Your task to perform on an android device: snooze an email in the gmail app Image 0: 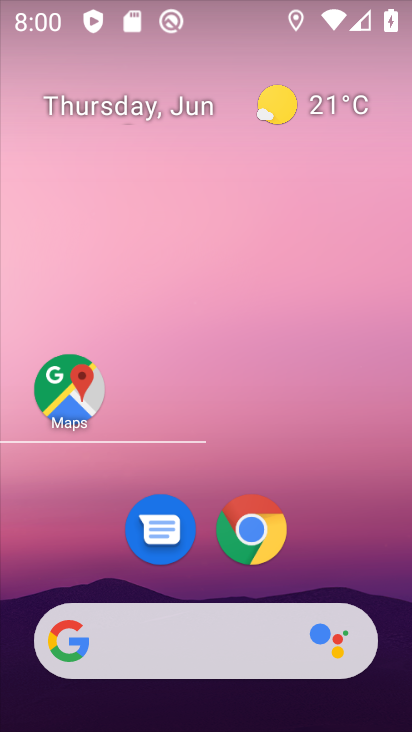
Step 0: press home button
Your task to perform on an android device: snooze an email in the gmail app Image 1: 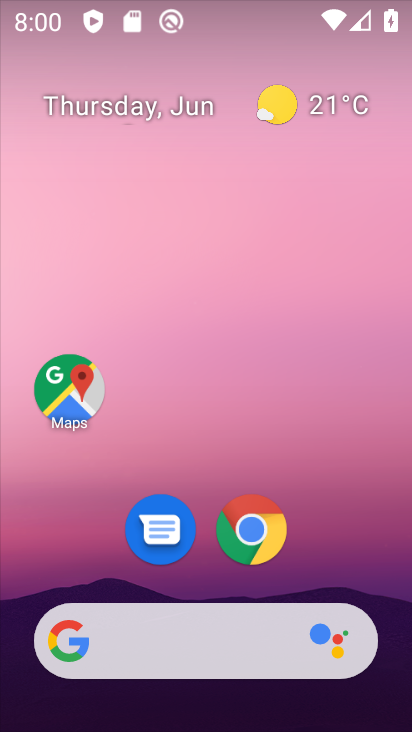
Step 1: press home button
Your task to perform on an android device: snooze an email in the gmail app Image 2: 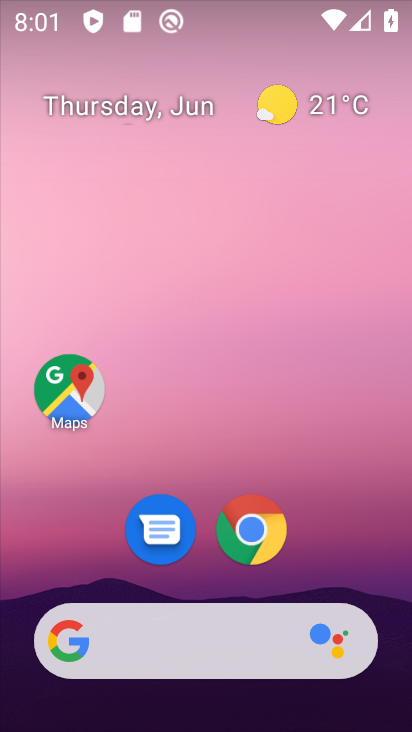
Step 2: drag from (305, 526) to (198, 9)
Your task to perform on an android device: snooze an email in the gmail app Image 3: 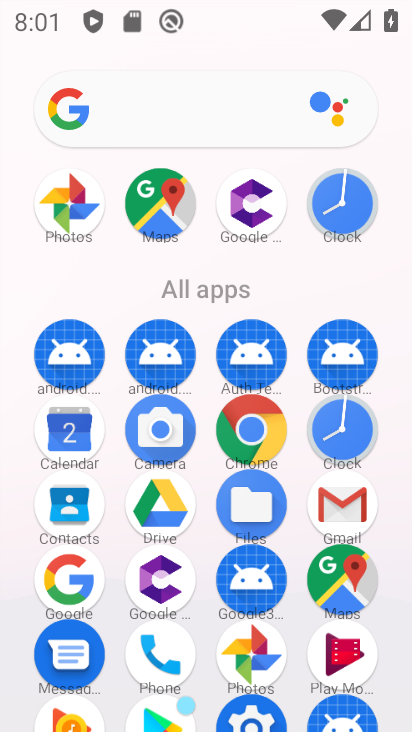
Step 3: click (335, 503)
Your task to perform on an android device: snooze an email in the gmail app Image 4: 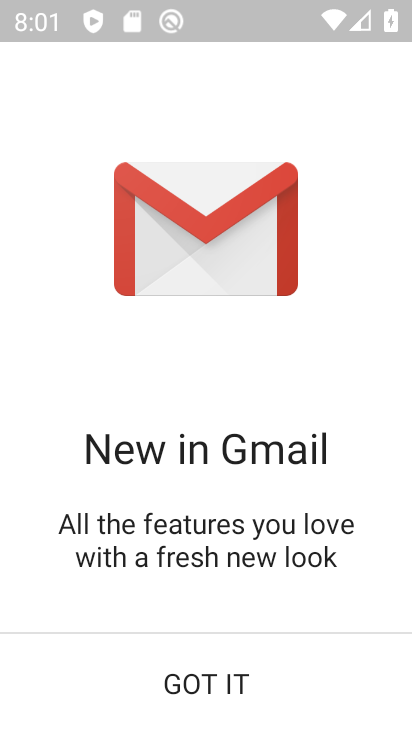
Step 4: click (186, 679)
Your task to perform on an android device: snooze an email in the gmail app Image 5: 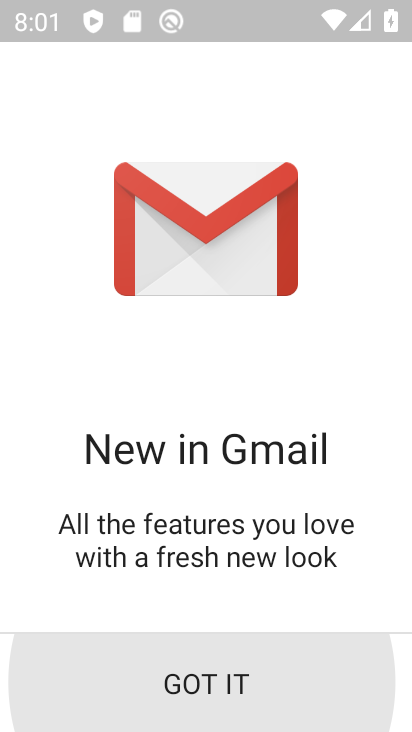
Step 5: click (186, 679)
Your task to perform on an android device: snooze an email in the gmail app Image 6: 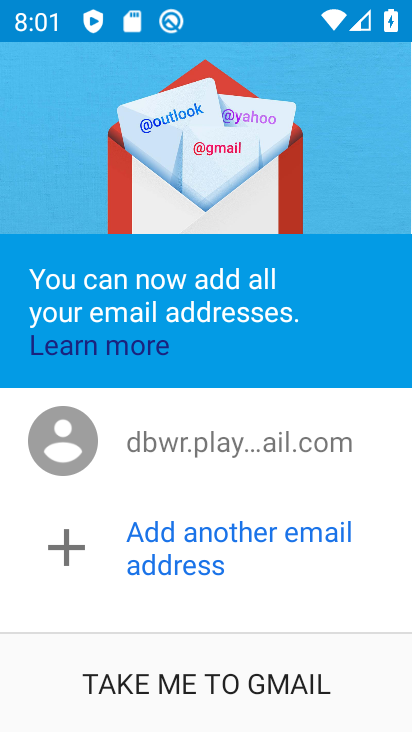
Step 6: click (203, 679)
Your task to perform on an android device: snooze an email in the gmail app Image 7: 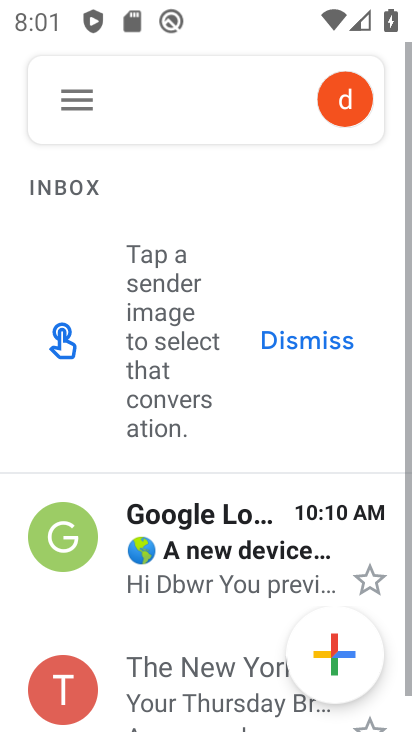
Step 7: click (211, 532)
Your task to perform on an android device: snooze an email in the gmail app Image 8: 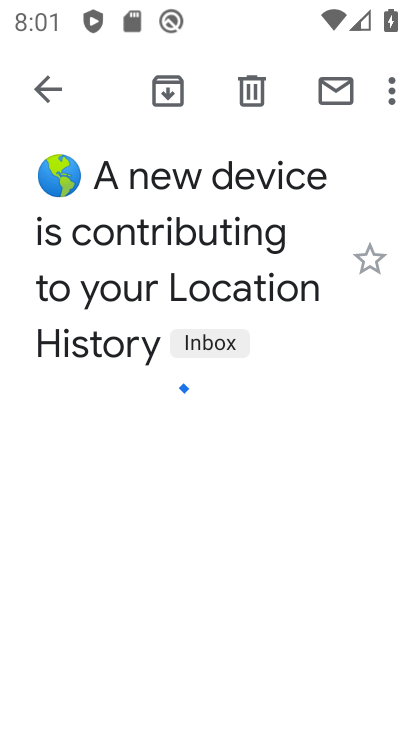
Step 8: click (389, 88)
Your task to perform on an android device: snooze an email in the gmail app Image 9: 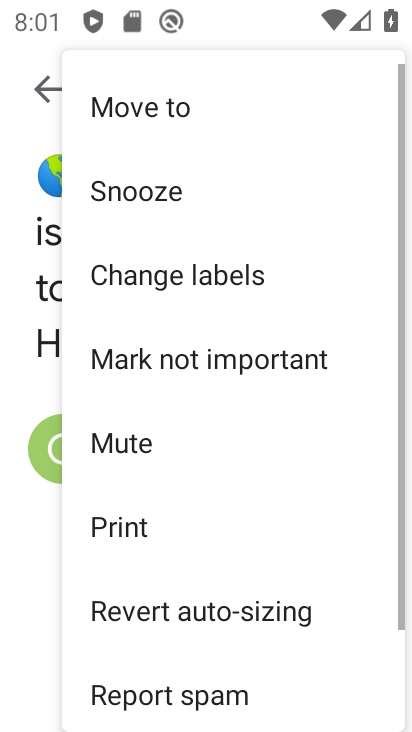
Step 9: click (173, 189)
Your task to perform on an android device: snooze an email in the gmail app Image 10: 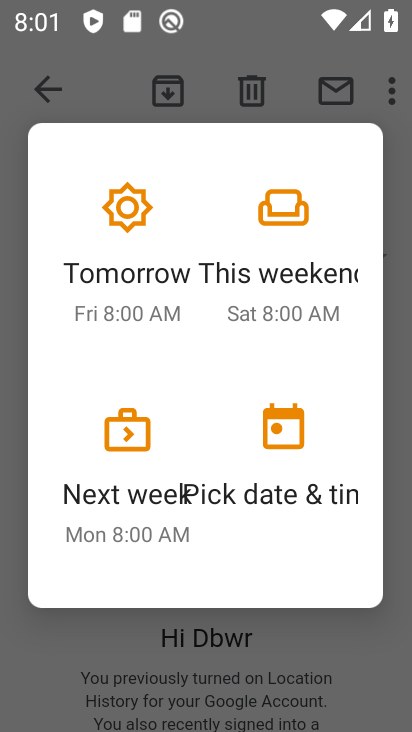
Step 10: click (150, 232)
Your task to perform on an android device: snooze an email in the gmail app Image 11: 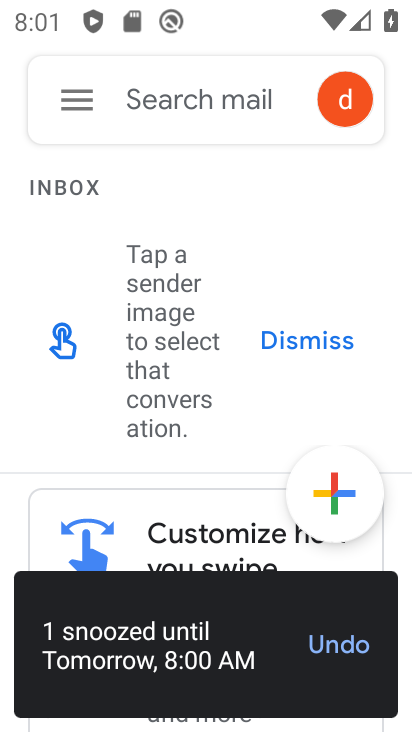
Step 11: task complete